Your task to perform on an android device: Search for razer naga on walmart, select the first entry, and add it to the cart. Image 0: 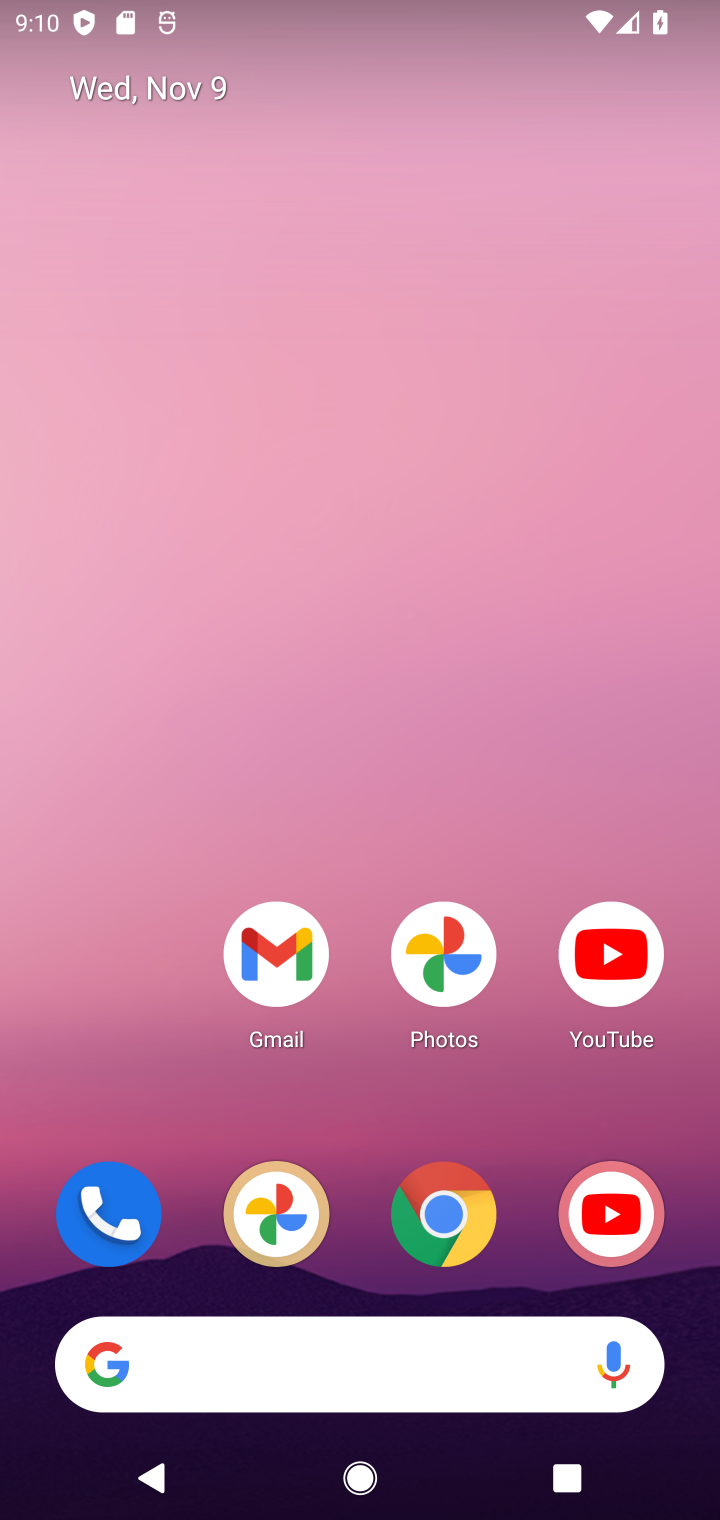
Step 0: drag from (374, 772) to (432, 23)
Your task to perform on an android device: Search for razer naga on walmart, select the first entry, and add it to the cart. Image 1: 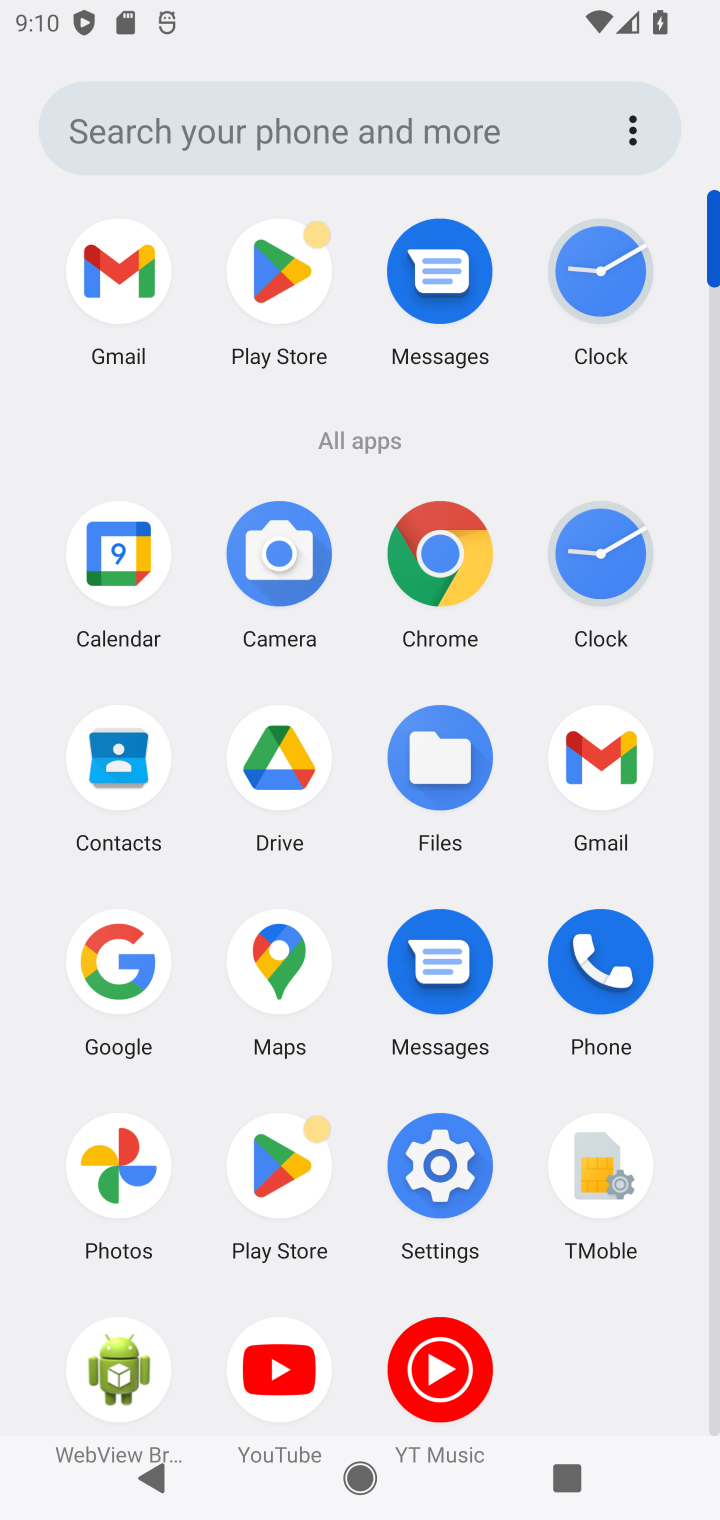
Step 1: click (443, 566)
Your task to perform on an android device: Search for razer naga on walmart, select the first entry, and add it to the cart. Image 2: 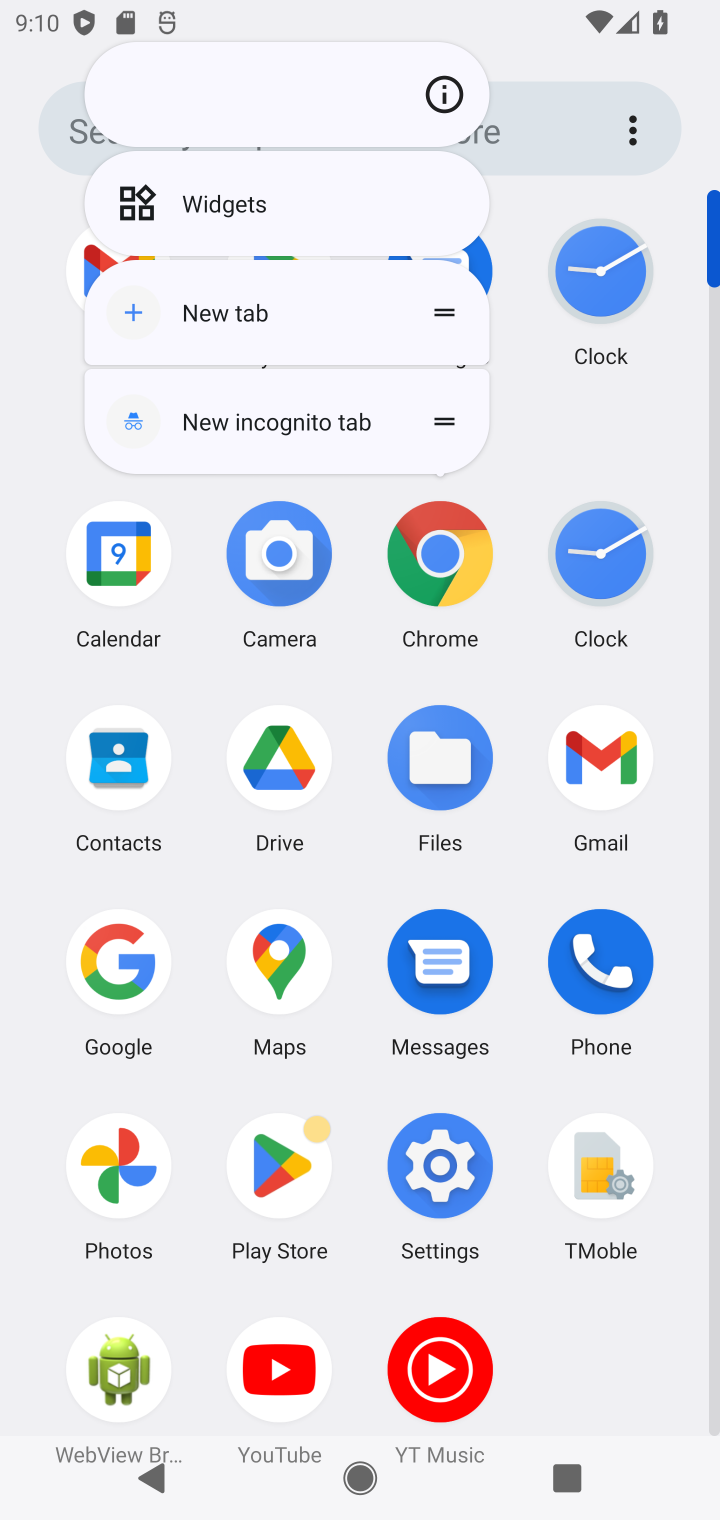
Step 2: click (447, 547)
Your task to perform on an android device: Search for razer naga on walmart, select the first entry, and add it to the cart. Image 3: 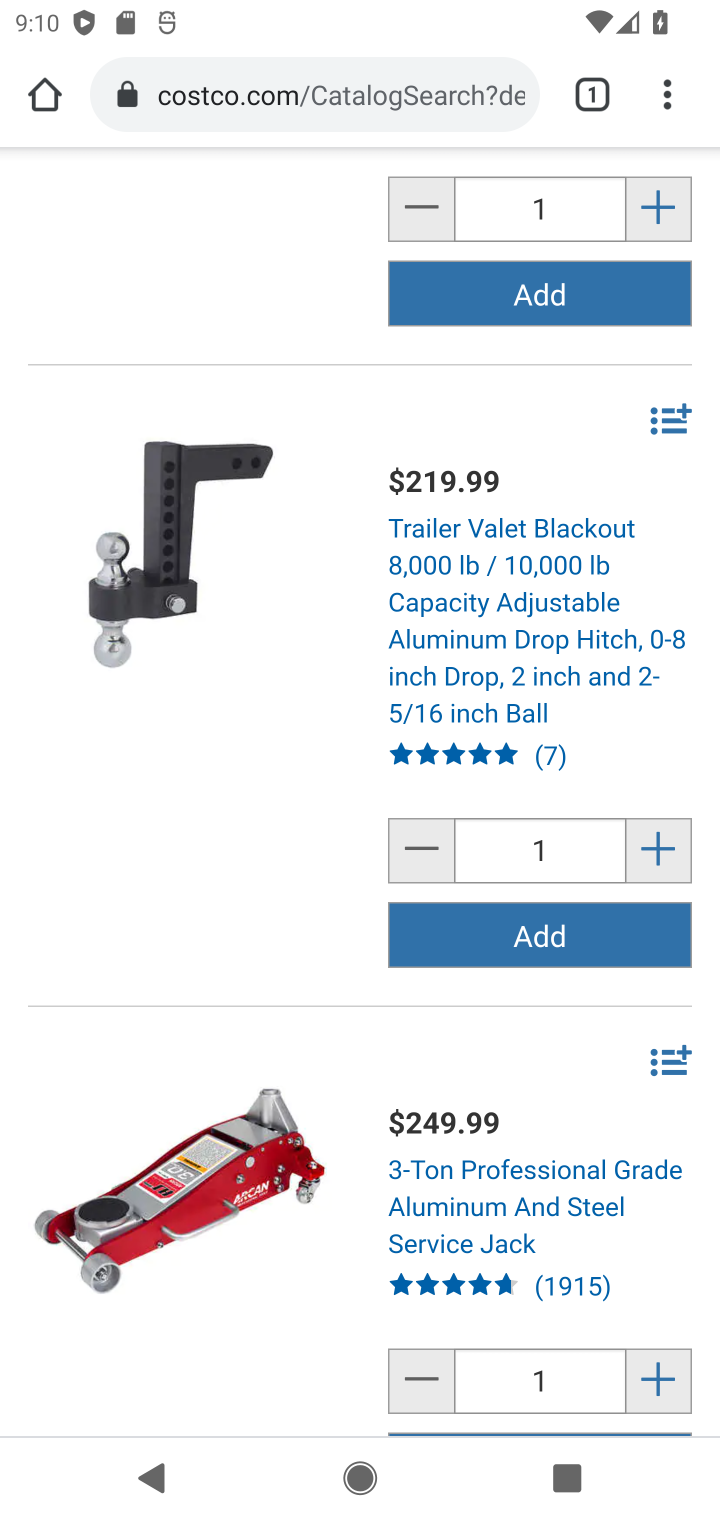
Step 3: click (422, 78)
Your task to perform on an android device: Search for razer naga on walmart, select the first entry, and add it to the cart. Image 4: 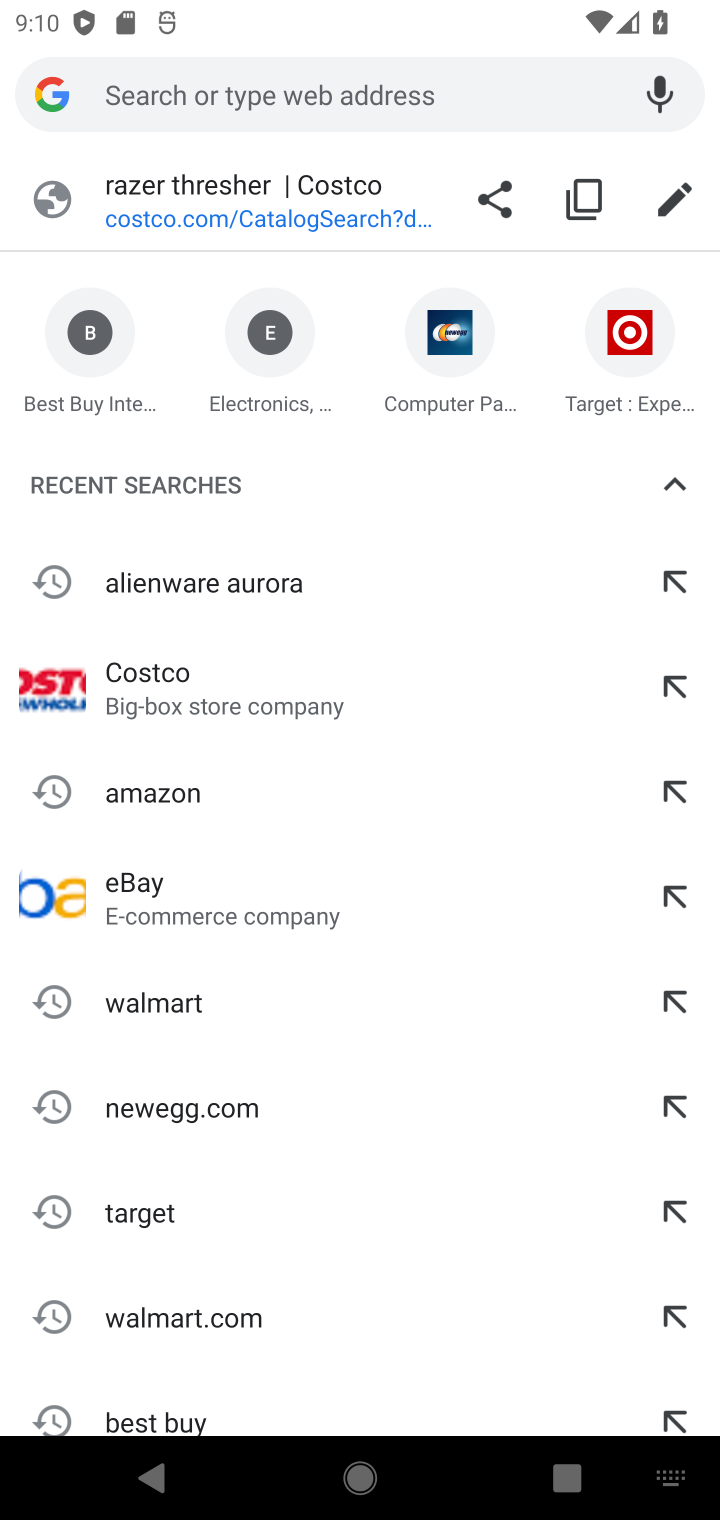
Step 4: type "walmart.com"
Your task to perform on an android device: Search for razer naga on walmart, select the first entry, and add it to the cart. Image 5: 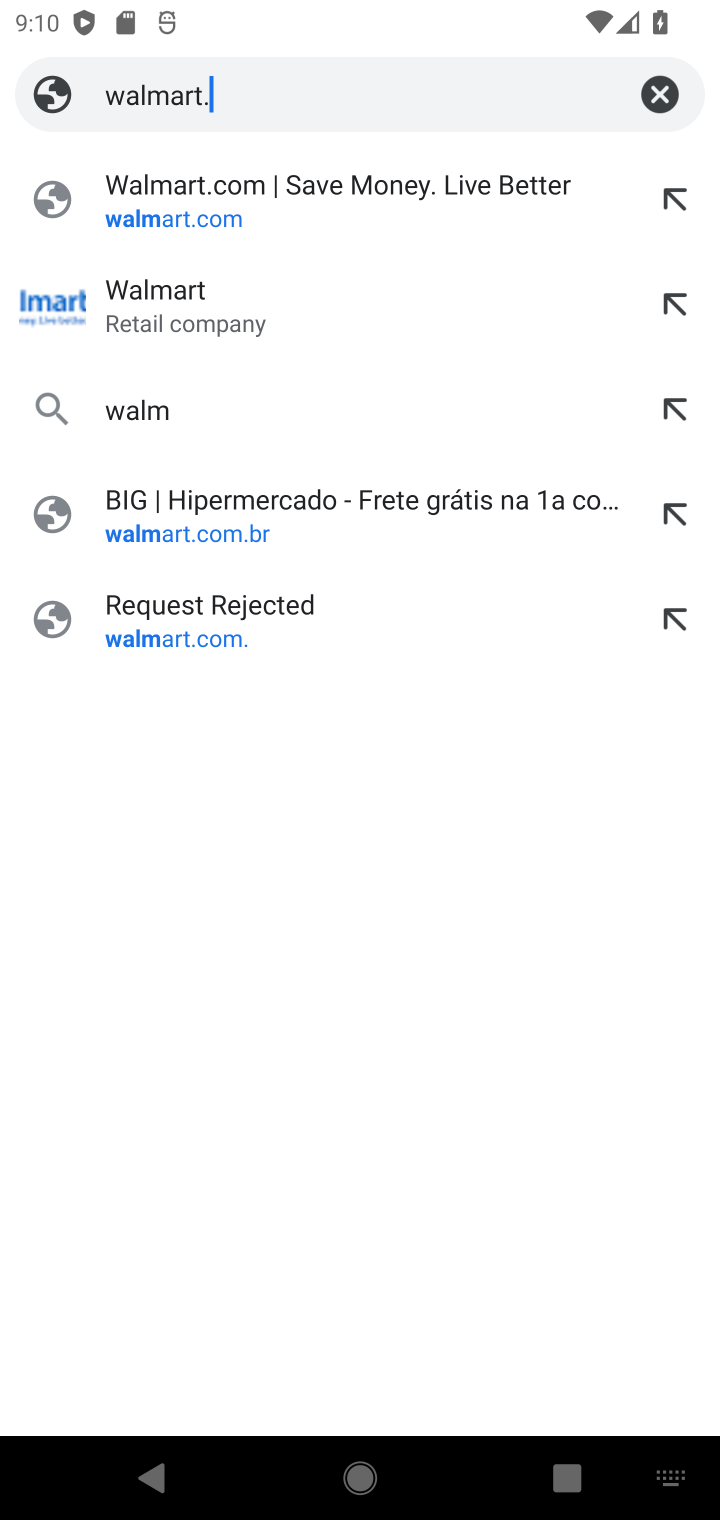
Step 5: press enter
Your task to perform on an android device: Search for razer naga on walmart, select the first entry, and add it to the cart. Image 6: 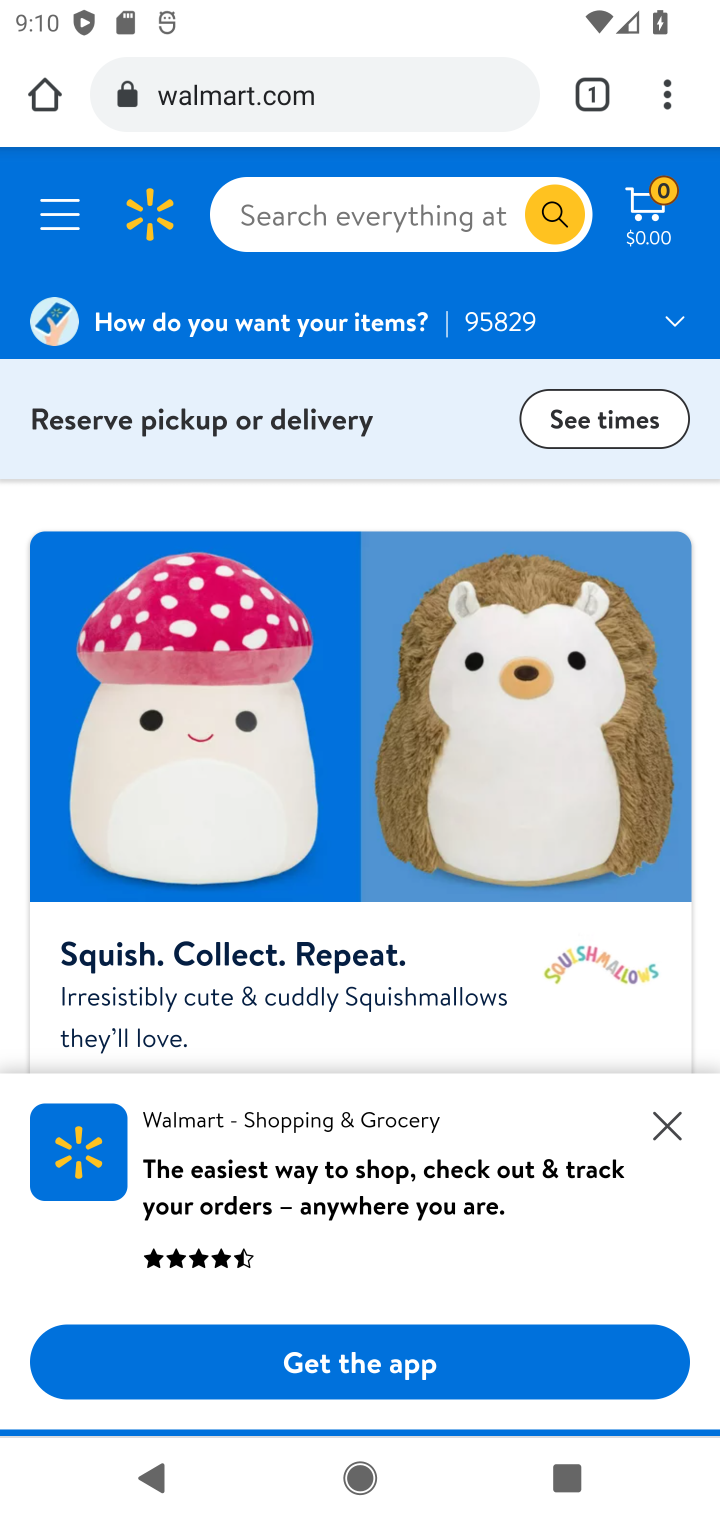
Step 6: click (425, 228)
Your task to perform on an android device: Search for razer naga on walmart, select the first entry, and add it to the cart. Image 7: 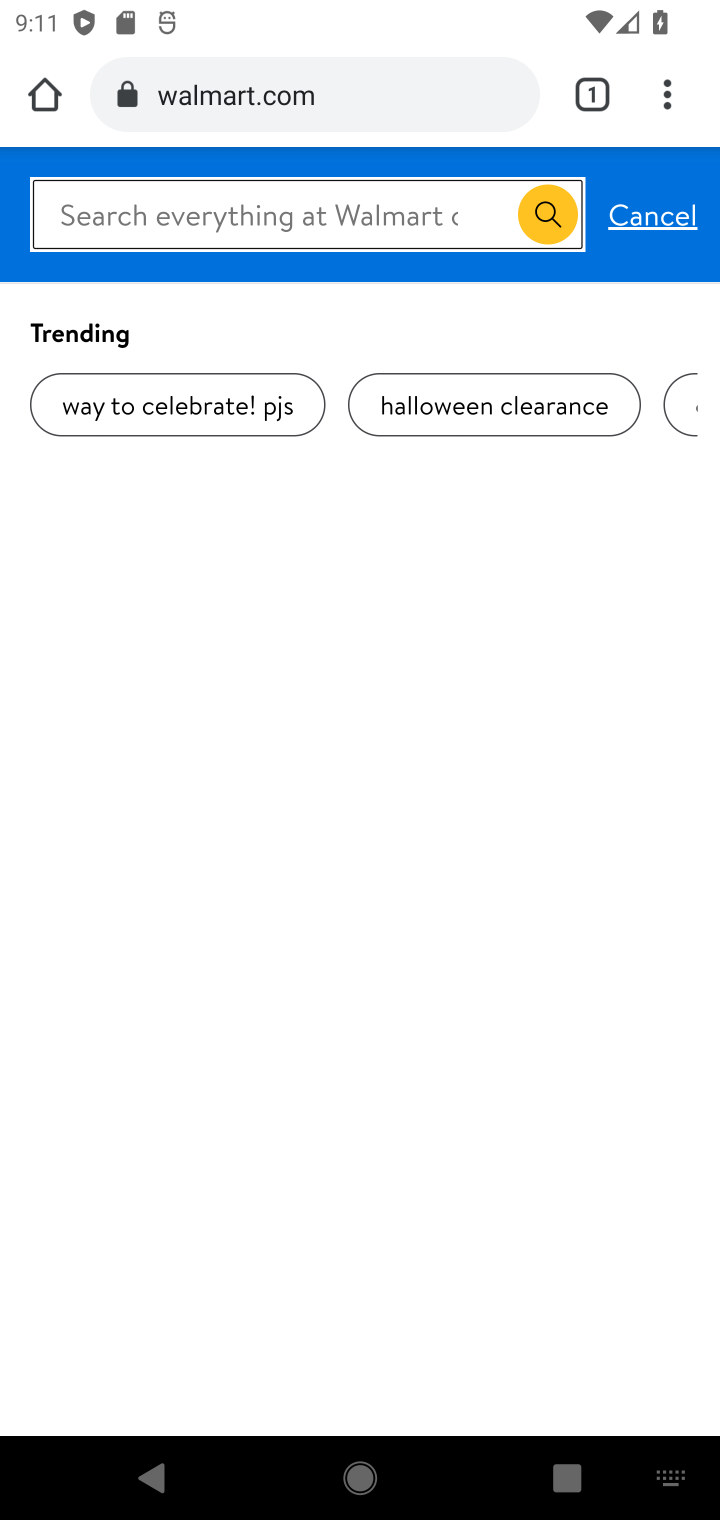
Step 7: type "razer naga"
Your task to perform on an android device: Search for razer naga on walmart, select the first entry, and add it to the cart. Image 8: 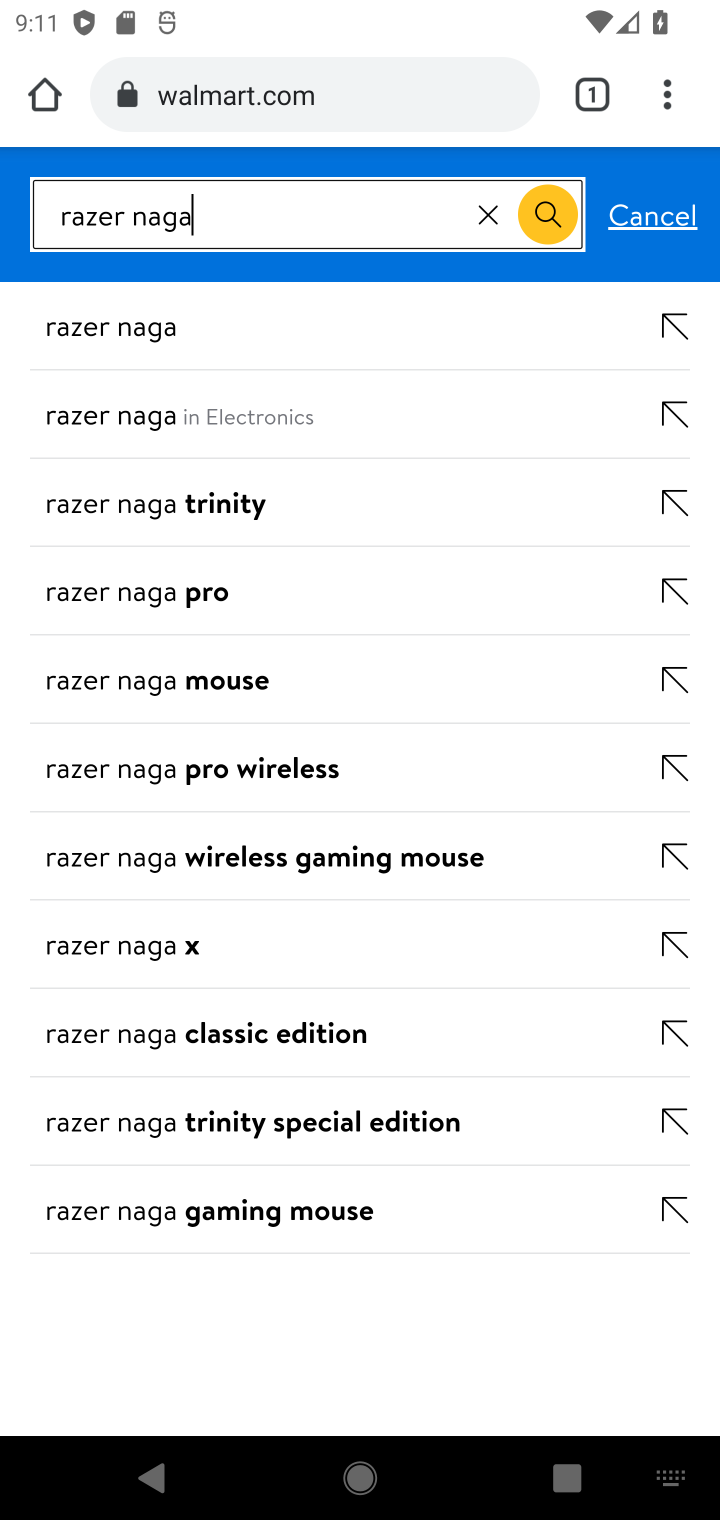
Step 8: press enter
Your task to perform on an android device: Search for razer naga on walmart, select the first entry, and add it to the cart. Image 9: 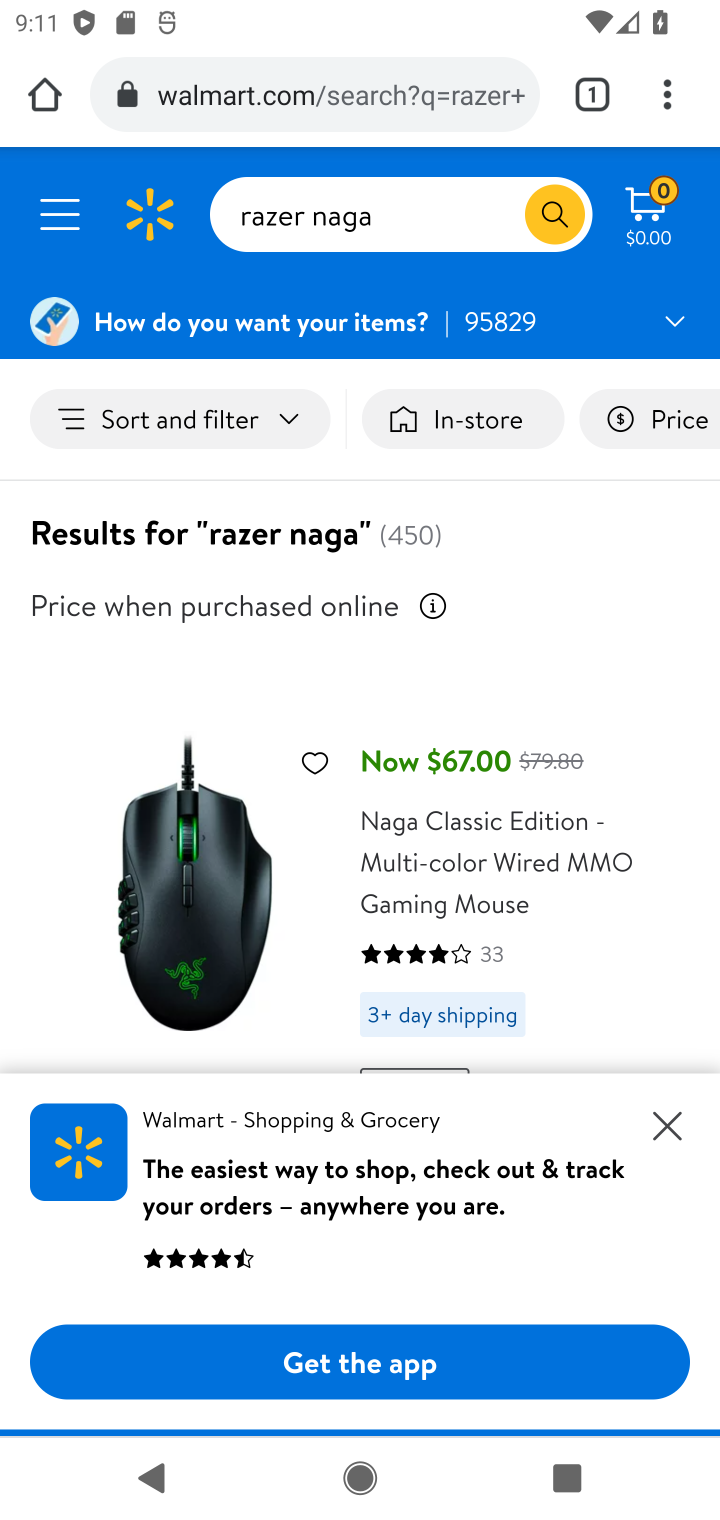
Step 9: drag from (560, 982) to (535, 524)
Your task to perform on an android device: Search for razer naga on walmart, select the first entry, and add it to the cart. Image 10: 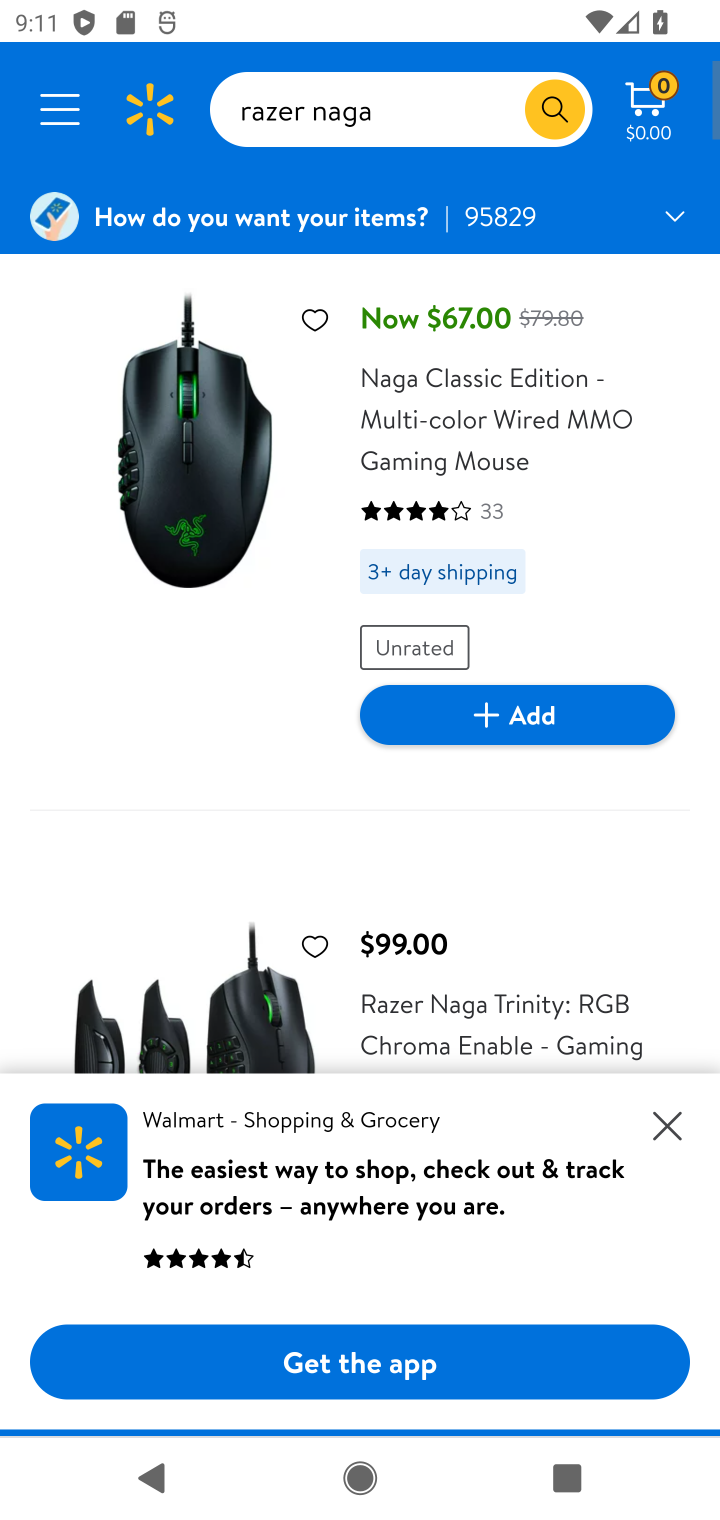
Step 10: drag from (448, 1078) to (432, 678)
Your task to perform on an android device: Search for razer naga on walmart, select the first entry, and add it to the cart. Image 11: 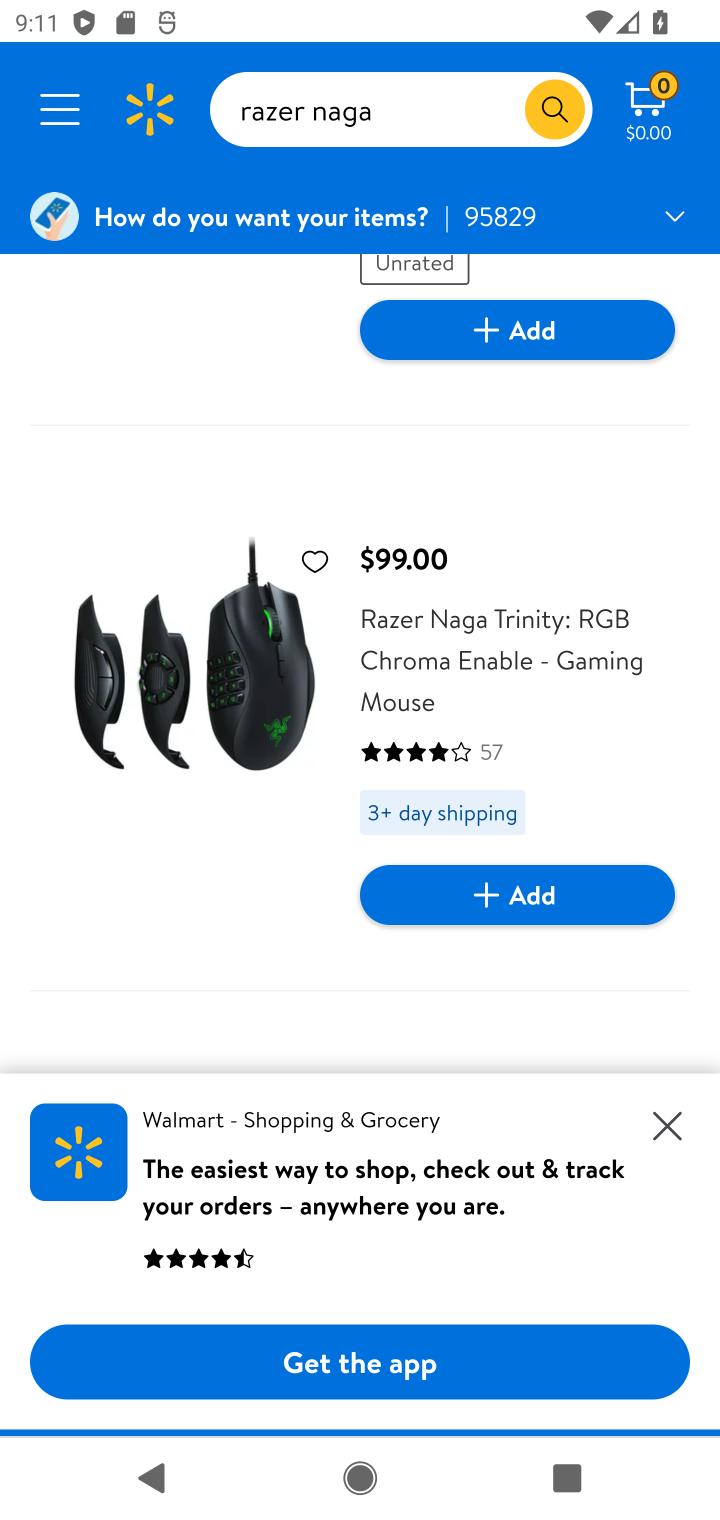
Step 11: drag from (462, 625) to (317, 684)
Your task to perform on an android device: Search for razer naga on walmart, select the first entry, and add it to the cart. Image 12: 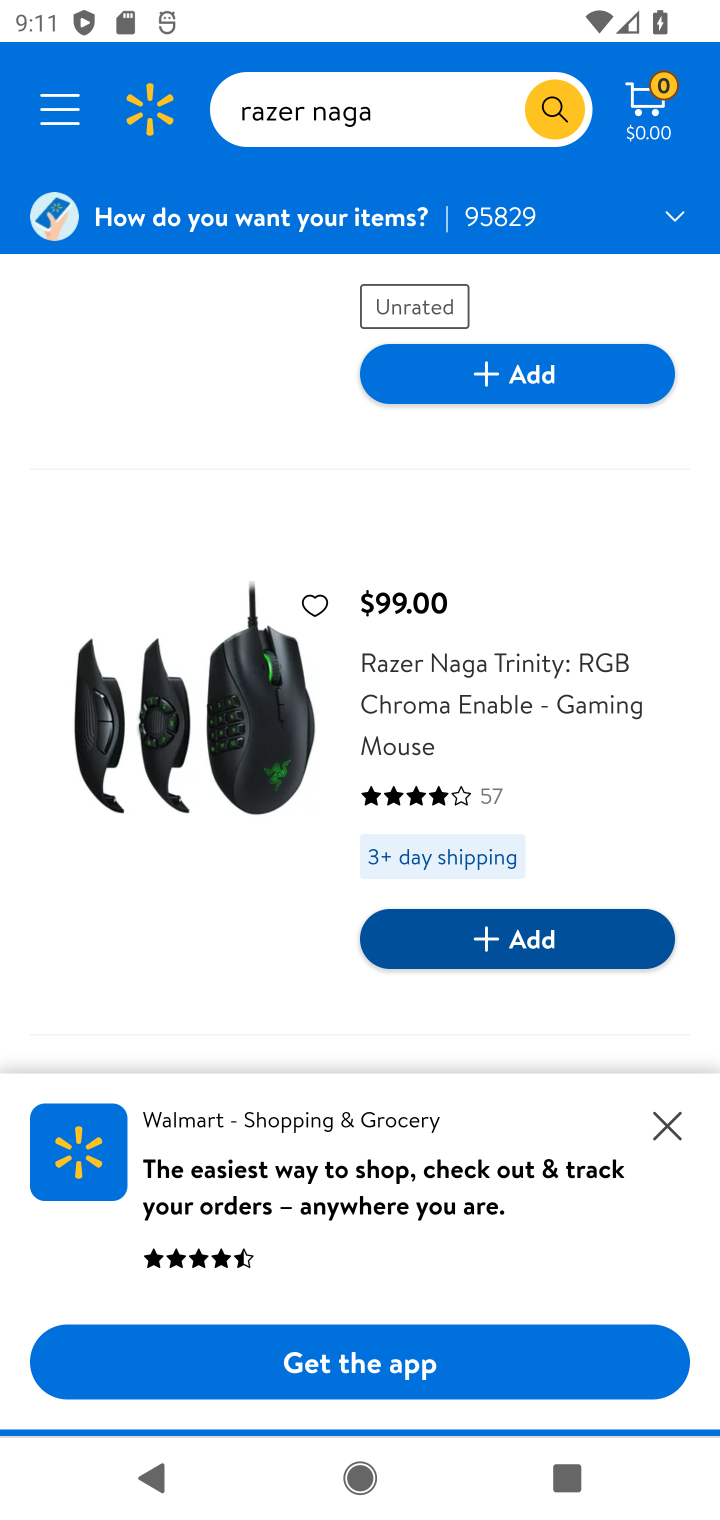
Step 12: click (595, 932)
Your task to perform on an android device: Search for razer naga on walmart, select the first entry, and add it to the cart. Image 13: 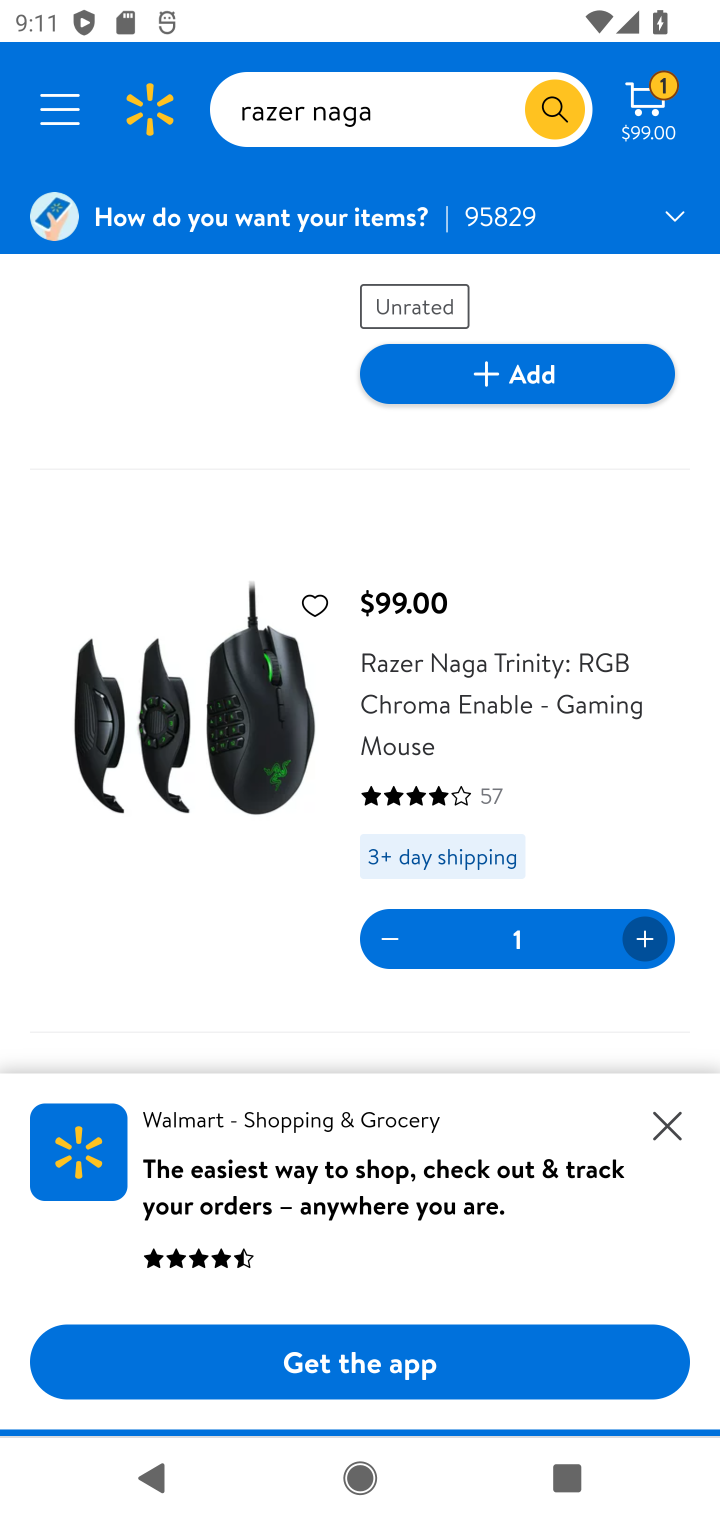
Step 13: task complete